Your task to perform on an android device: turn on showing notifications on the lock screen Image 0: 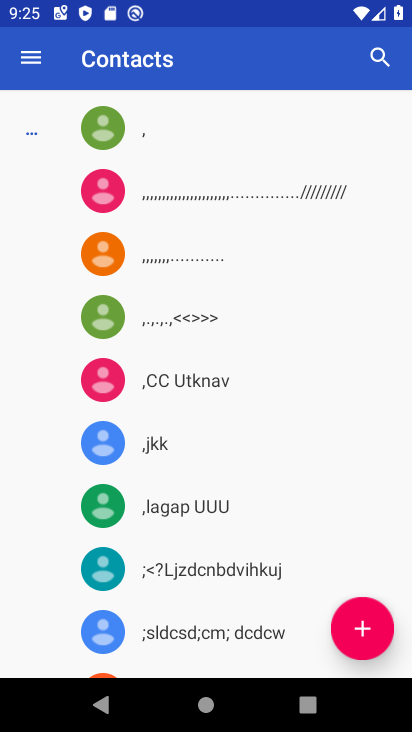
Step 0: press home button
Your task to perform on an android device: turn on showing notifications on the lock screen Image 1: 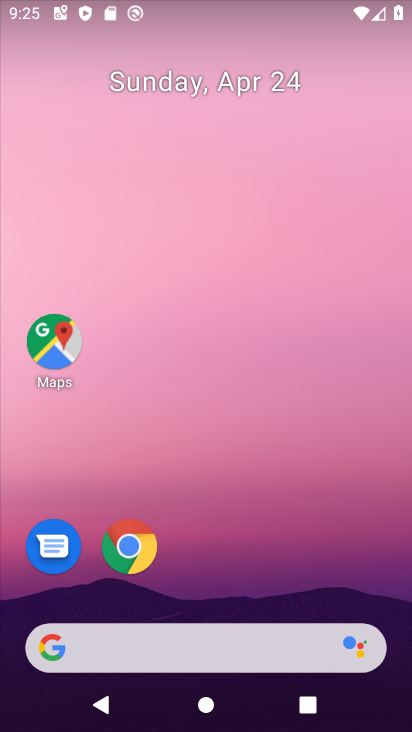
Step 1: drag from (312, 569) to (216, 184)
Your task to perform on an android device: turn on showing notifications on the lock screen Image 2: 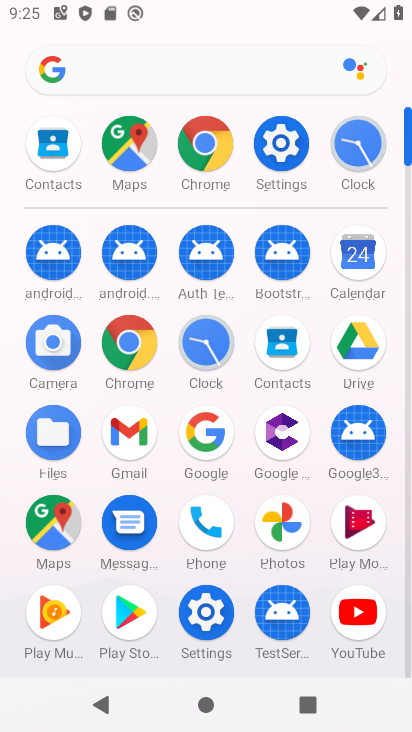
Step 2: click (282, 162)
Your task to perform on an android device: turn on showing notifications on the lock screen Image 3: 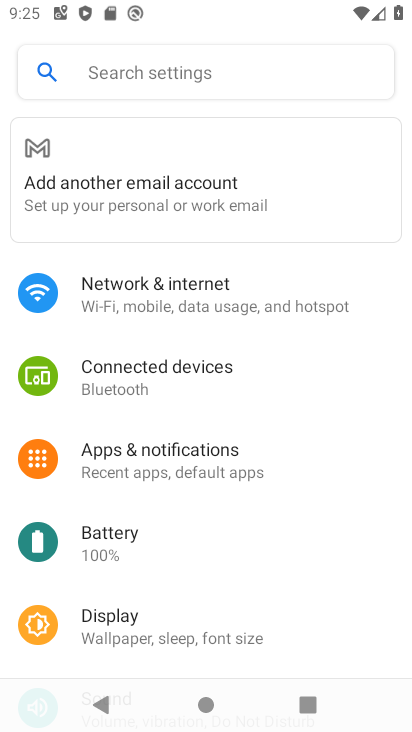
Step 3: drag from (245, 633) to (246, 547)
Your task to perform on an android device: turn on showing notifications on the lock screen Image 4: 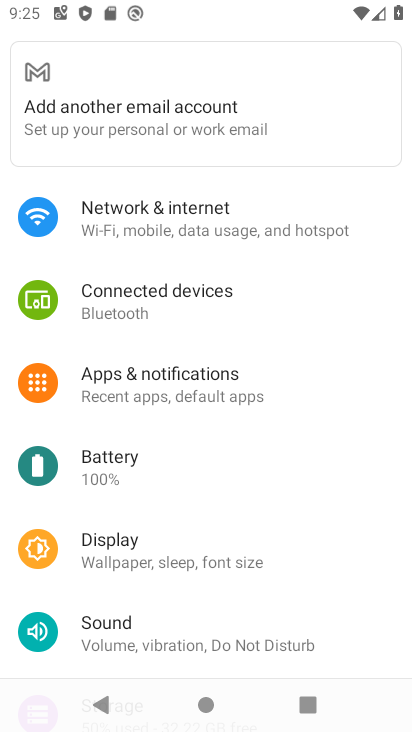
Step 4: click (202, 373)
Your task to perform on an android device: turn on showing notifications on the lock screen Image 5: 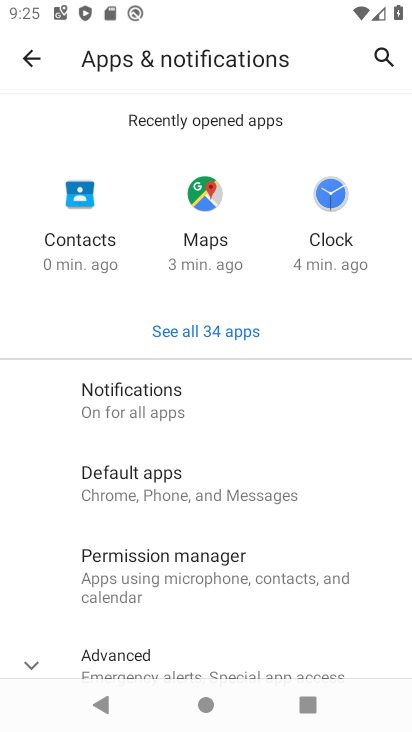
Step 5: click (201, 651)
Your task to perform on an android device: turn on showing notifications on the lock screen Image 6: 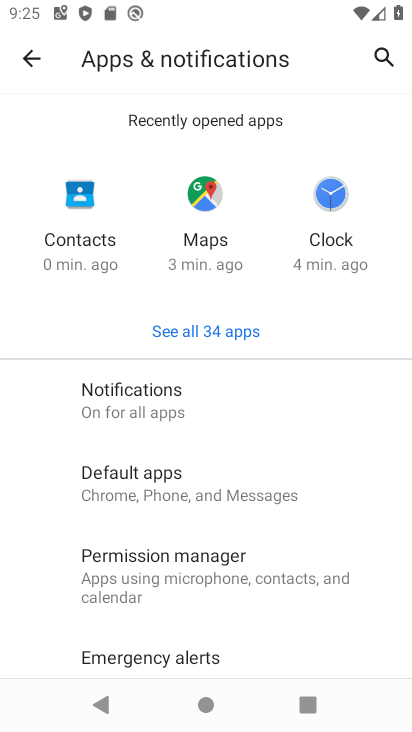
Step 6: drag from (201, 651) to (199, 435)
Your task to perform on an android device: turn on showing notifications on the lock screen Image 7: 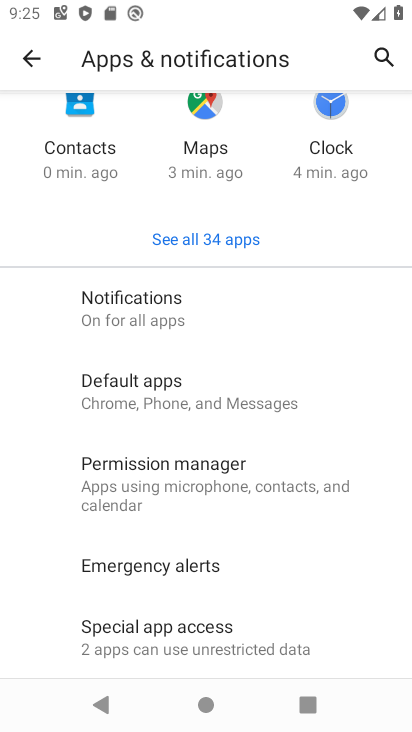
Step 7: click (202, 303)
Your task to perform on an android device: turn on showing notifications on the lock screen Image 8: 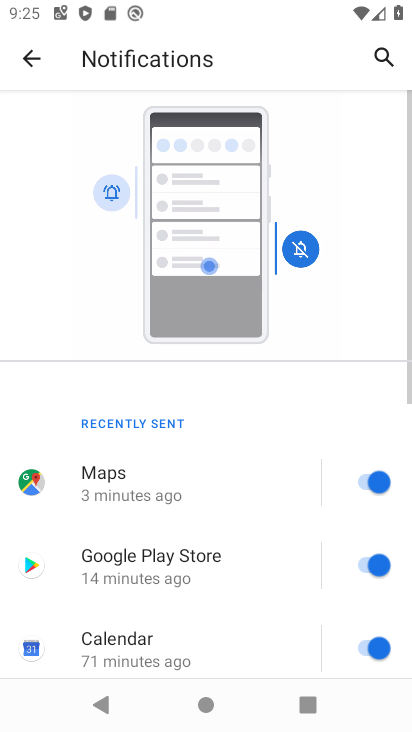
Step 8: drag from (159, 511) to (184, 252)
Your task to perform on an android device: turn on showing notifications on the lock screen Image 9: 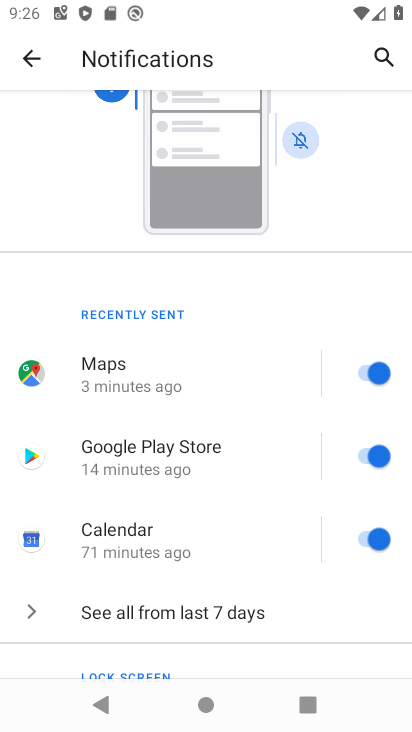
Step 9: drag from (170, 622) to (216, 386)
Your task to perform on an android device: turn on showing notifications on the lock screen Image 10: 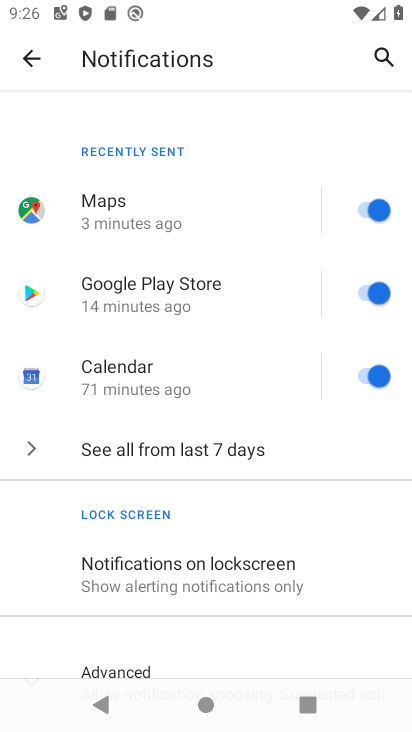
Step 10: click (204, 584)
Your task to perform on an android device: turn on showing notifications on the lock screen Image 11: 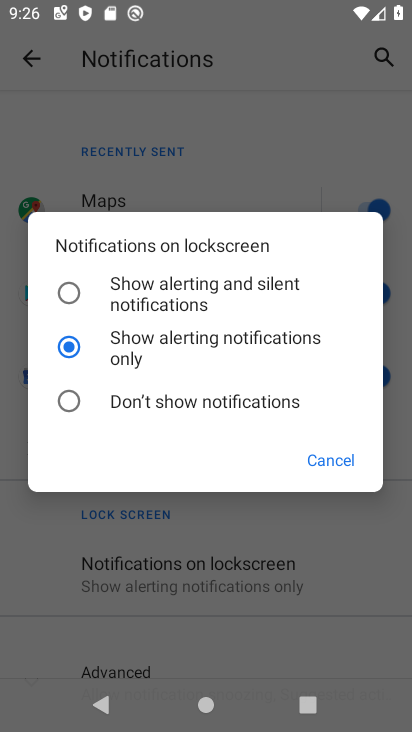
Step 11: task complete